Your task to perform on an android device: stop showing notifications on the lock screen Image 0: 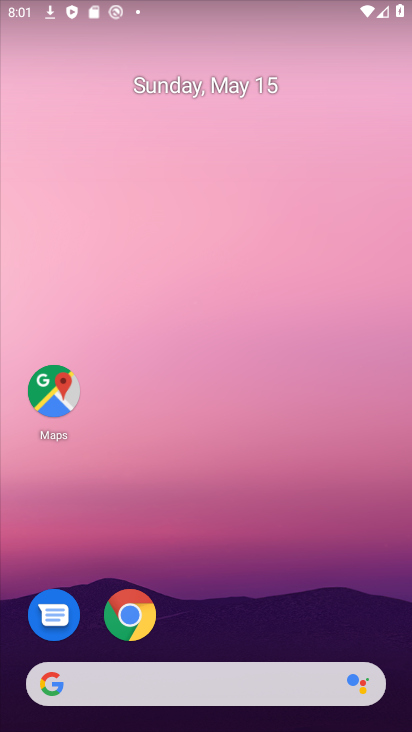
Step 0: press home button
Your task to perform on an android device: stop showing notifications on the lock screen Image 1: 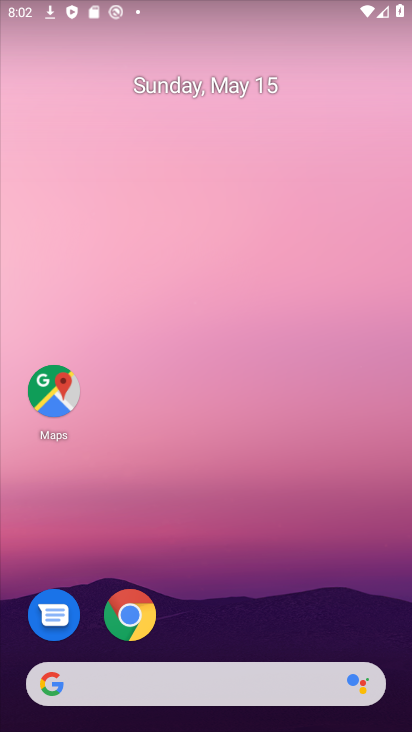
Step 1: drag from (182, 717) to (197, 402)
Your task to perform on an android device: stop showing notifications on the lock screen Image 2: 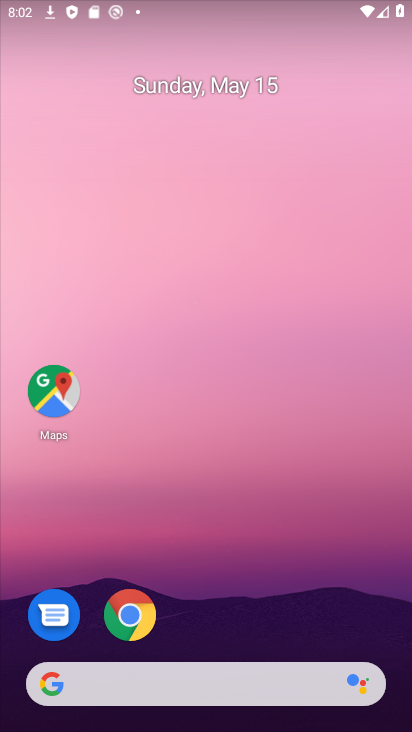
Step 2: drag from (262, 708) to (272, 283)
Your task to perform on an android device: stop showing notifications on the lock screen Image 3: 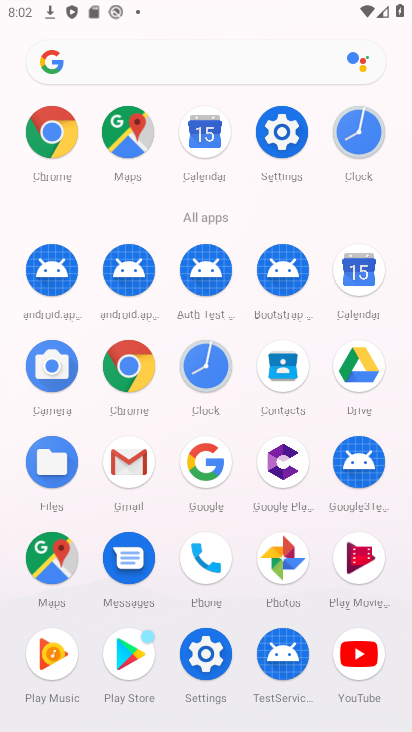
Step 3: click (288, 146)
Your task to perform on an android device: stop showing notifications on the lock screen Image 4: 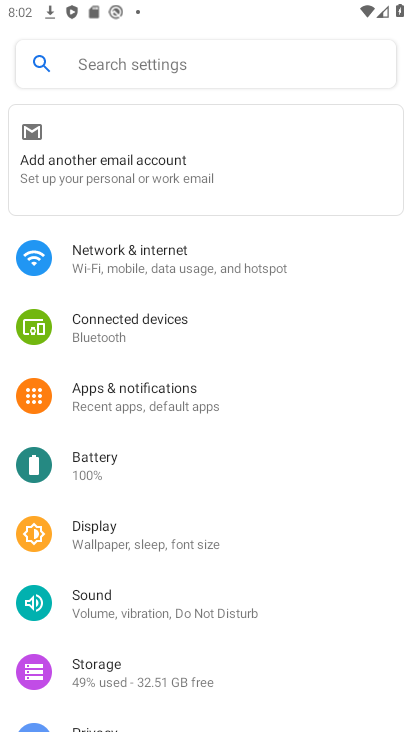
Step 4: click (123, 69)
Your task to perform on an android device: stop showing notifications on the lock screen Image 5: 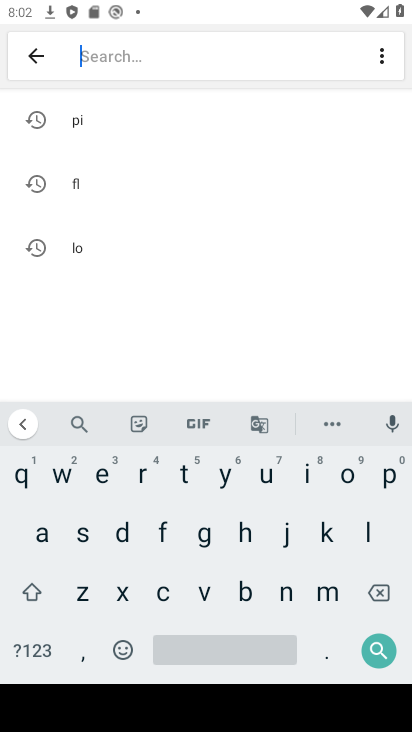
Step 5: click (285, 591)
Your task to perform on an android device: stop showing notifications on the lock screen Image 6: 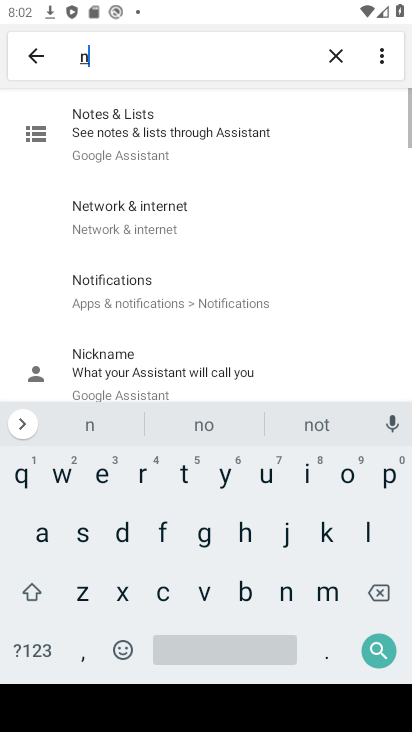
Step 6: click (342, 475)
Your task to perform on an android device: stop showing notifications on the lock screen Image 7: 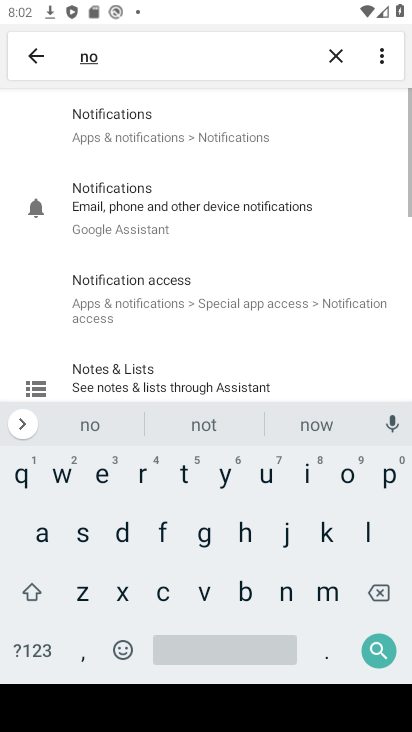
Step 7: click (126, 127)
Your task to perform on an android device: stop showing notifications on the lock screen Image 8: 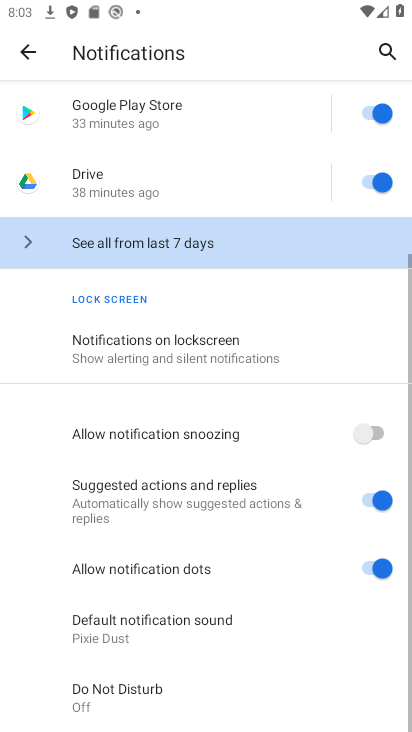
Step 8: task complete